Your task to perform on an android device: toggle data saver in the chrome app Image 0: 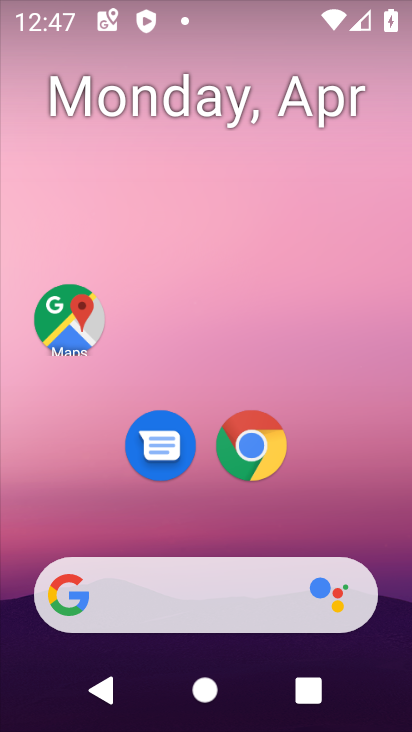
Step 0: drag from (357, 498) to (373, 120)
Your task to perform on an android device: toggle data saver in the chrome app Image 1: 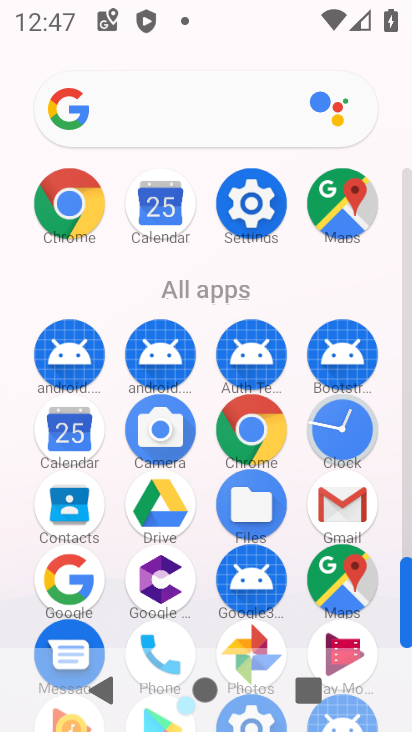
Step 1: click (256, 424)
Your task to perform on an android device: toggle data saver in the chrome app Image 2: 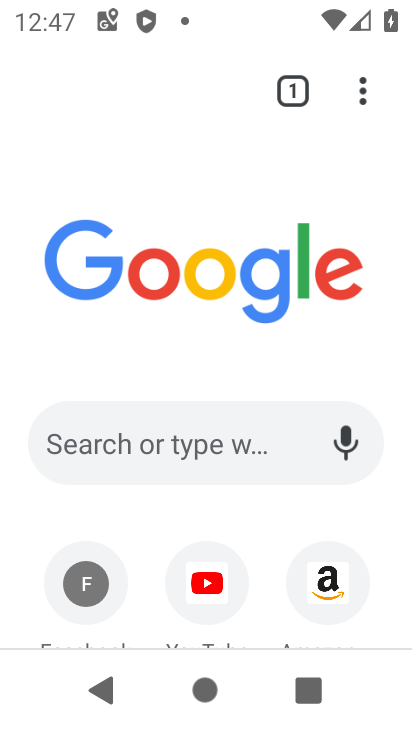
Step 2: click (363, 79)
Your task to perform on an android device: toggle data saver in the chrome app Image 3: 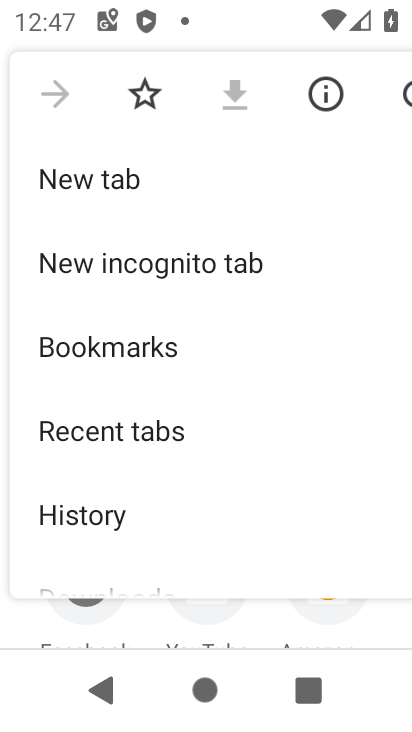
Step 3: drag from (312, 458) to (309, 313)
Your task to perform on an android device: toggle data saver in the chrome app Image 4: 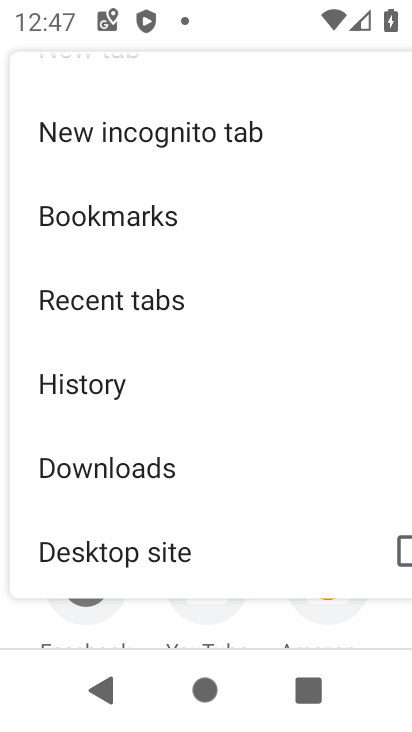
Step 4: drag from (304, 496) to (307, 348)
Your task to perform on an android device: toggle data saver in the chrome app Image 5: 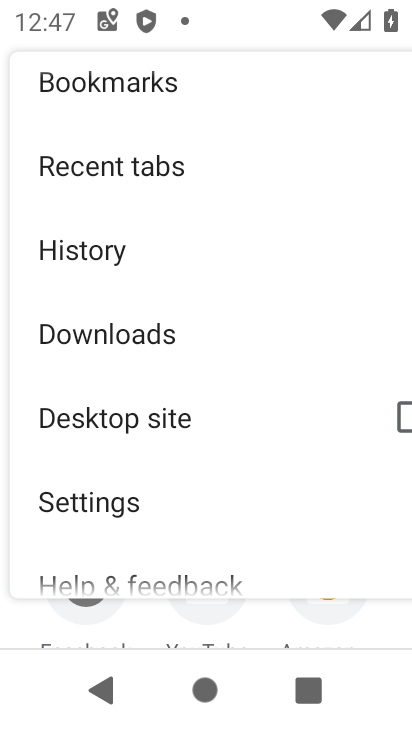
Step 5: drag from (308, 528) to (309, 341)
Your task to perform on an android device: toggle data saver in the chrome app Image 6: 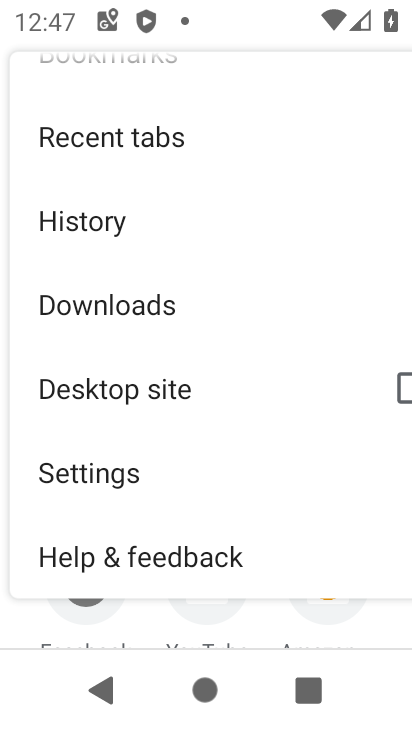
Step 6: click (120, 477)
Your task to perform on an android device: toggle data saver in the chrome app Image 7: 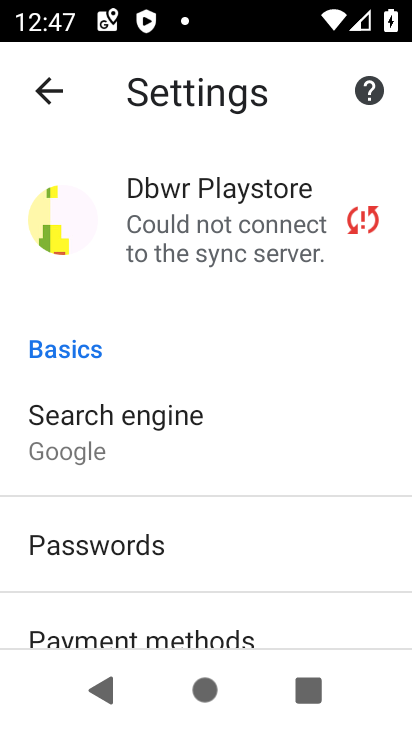
Step 7: drag from (356, 576) to (358, 424)
Your task to perform on an android device: toggle data saver in the chrome app Image 8: 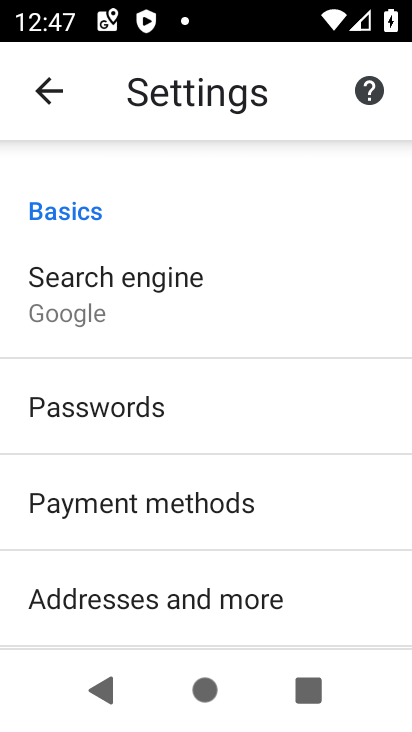
Step 8: drag from (343, 590) to (340, 427)
Your task to perform on an android device: toggle data saver in the chrome app Image 9: 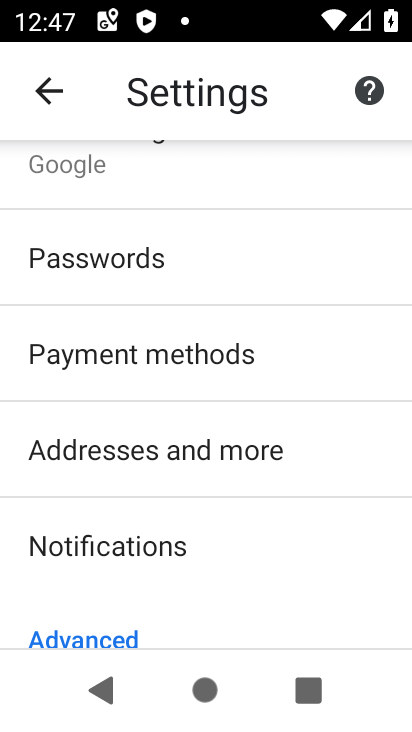
Step 9: drag from (334, 609) to (343, 384)
Your task to perform on an android device: toggle data saver in the chrome app Image 10: 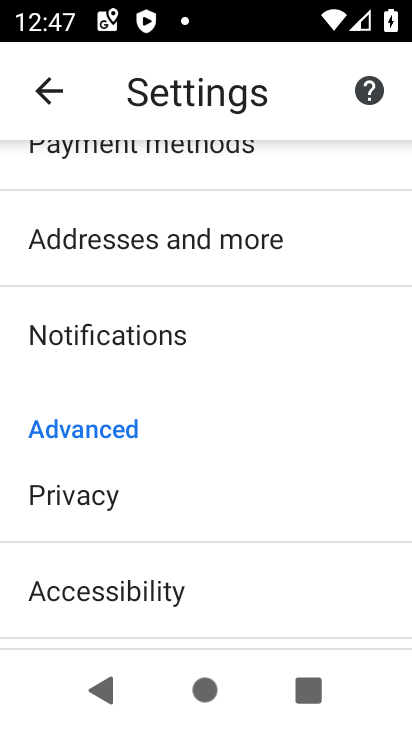
Step 10: drag from (323, 597) to (326, 473)
Your task to perform on an android device: toggle data saver in the chrome app Image 11: 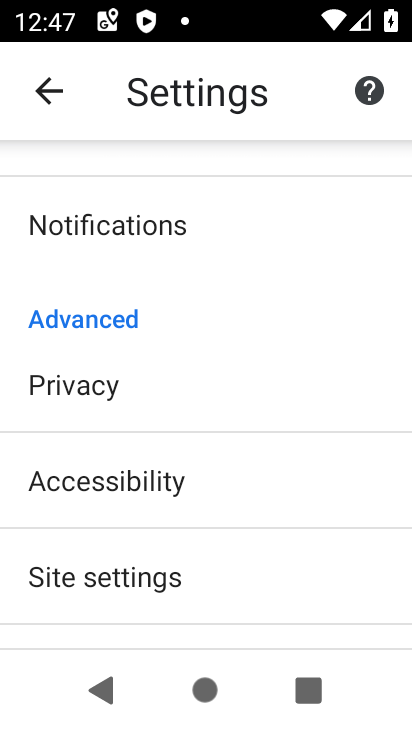
Step 11: drag from (299, 589) to (326, 236)
Your task to perform on an android device: toggle data saver in the chrome app Image 12: 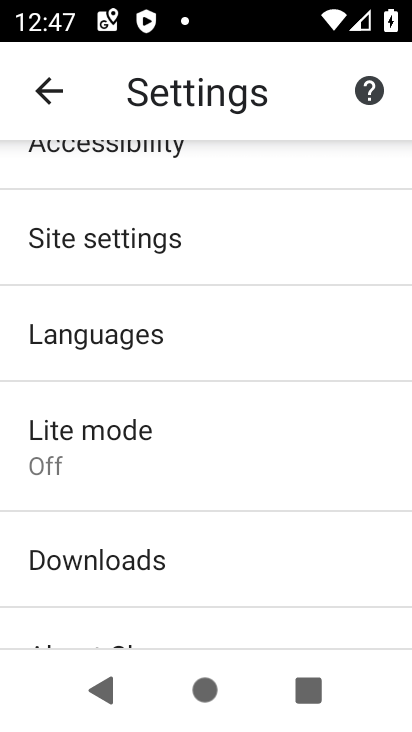
Step 12: click (286, 440)
Your task to perform on an android device: toggle data saver in the chrome app Image 13: 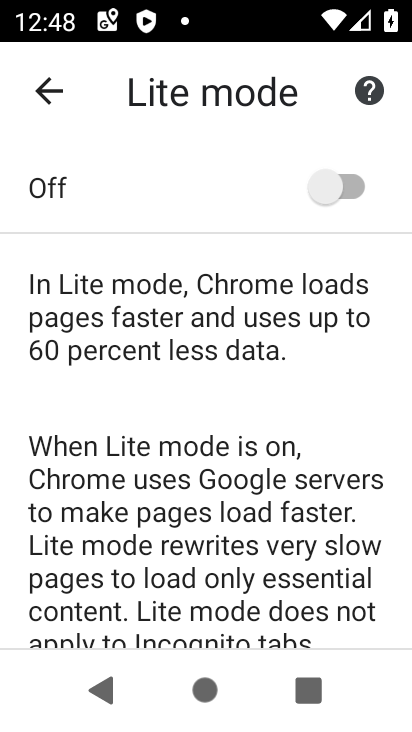
Step 13: click (351, 192)
Your task to perform on an android device: toggle data saver in the chrome app Image 14: 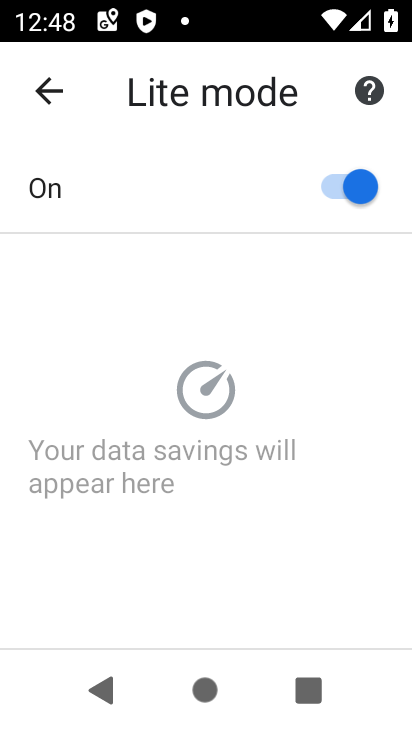
Step 14: task complete